Your task to perform on an android device: install app "Paramount+ | Peak Streaming" Image 0: 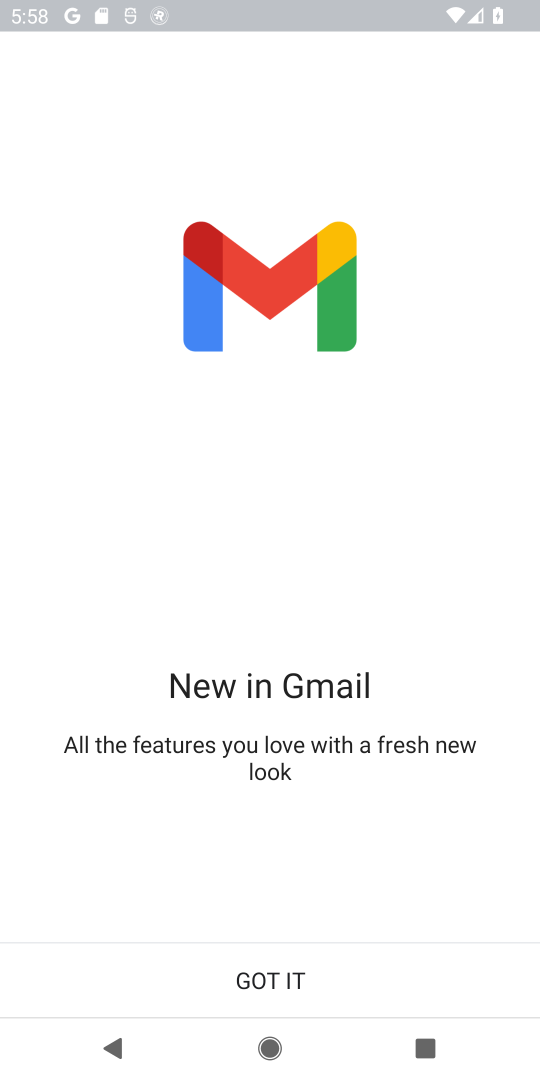
Step 0: press back button
Your task to perform on an android device: install app "Paramount+ | Peak Streaming" Image 1: 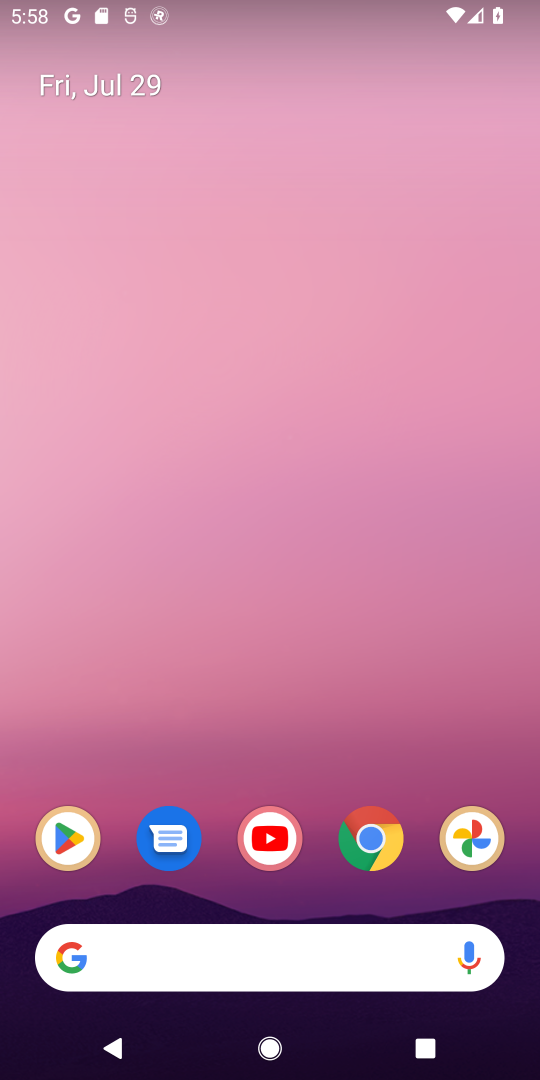
Step 1: click (80, 838)
Your task to perform on an android device: install app "Paramount+ | Peak Streaming" Image 2: 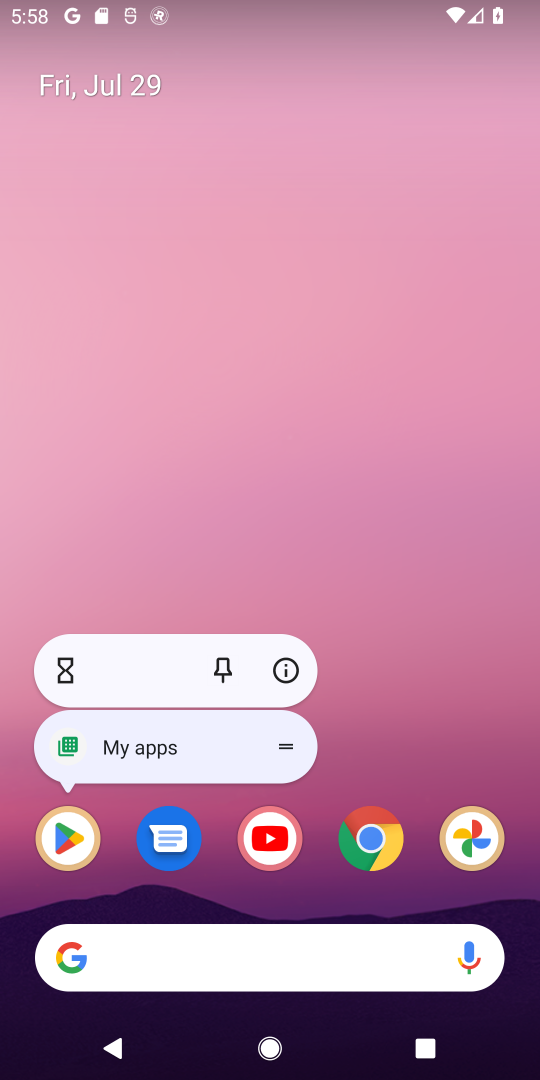
Step 2: click (65, 835)
Your task to perform on an android device: install app "Paramount+ | Peak Streaming" Image 3: 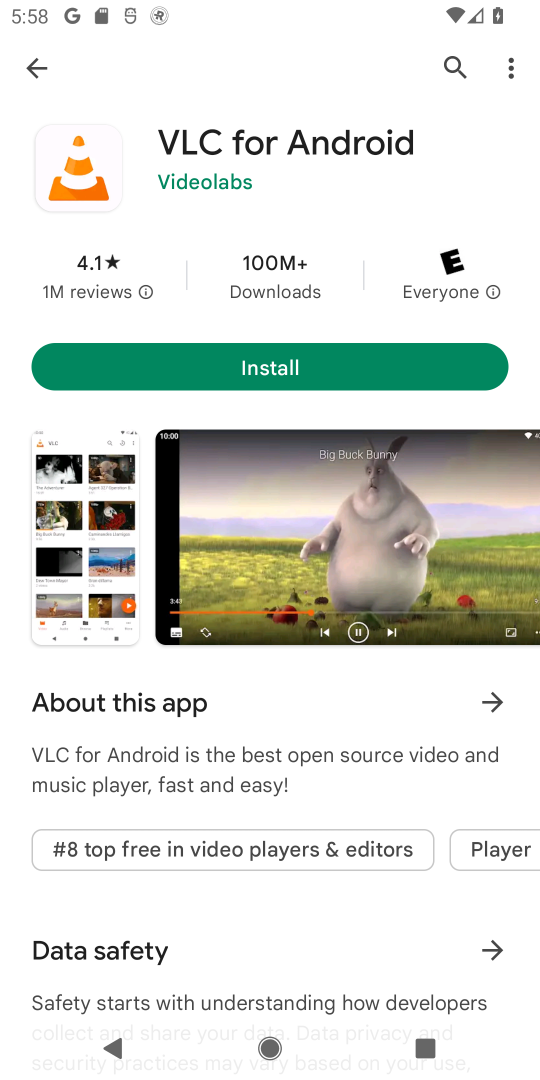
Step 3: click (444, 78)
Your task to perform on an android device: install app "Paramount+ | Peak Streaming" Image 4: 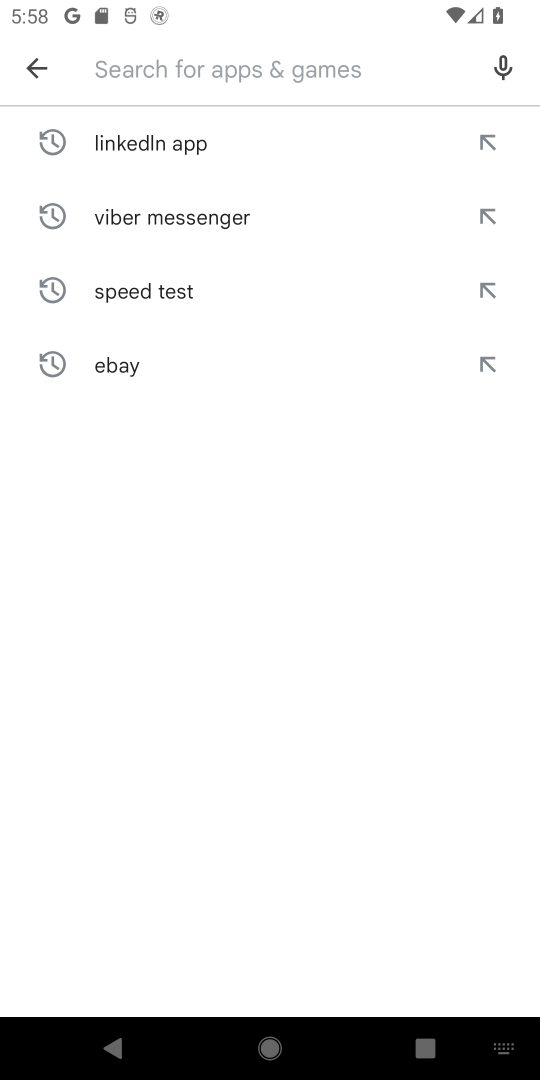
Step 4: click (280, 67)
Your task to perform on an android device: install app "Paramount+ | Peak Streaming" Image 5: 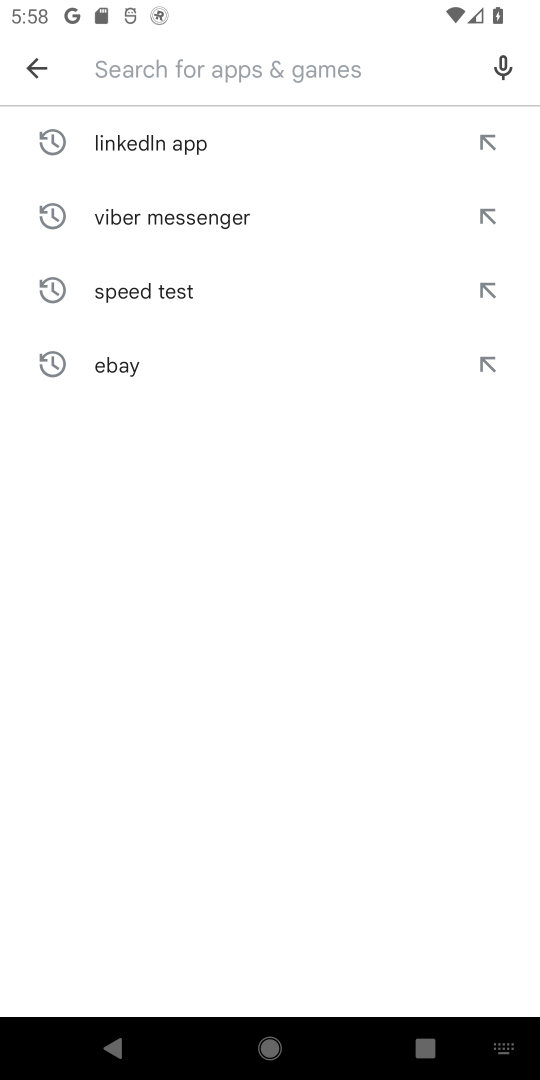
Step 5: type "paramount+"
Your task to perform on an android device: install app "Paramount+ | Peak Streaming" Image 6: 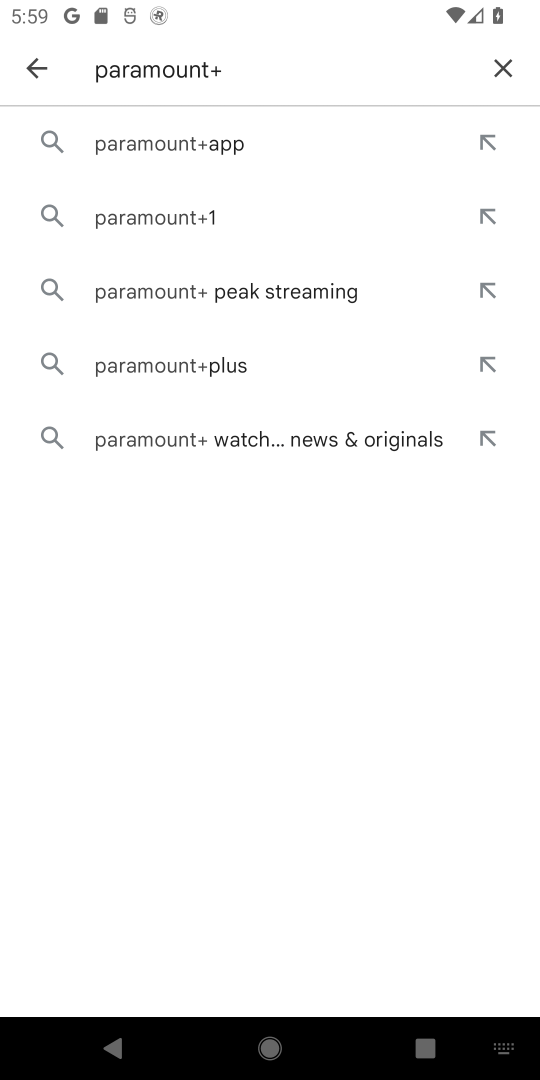
Step 6: click (217, 143)
Your task to perform on an android device: install app "Paramount+ | Peak Streaming" Image 7: 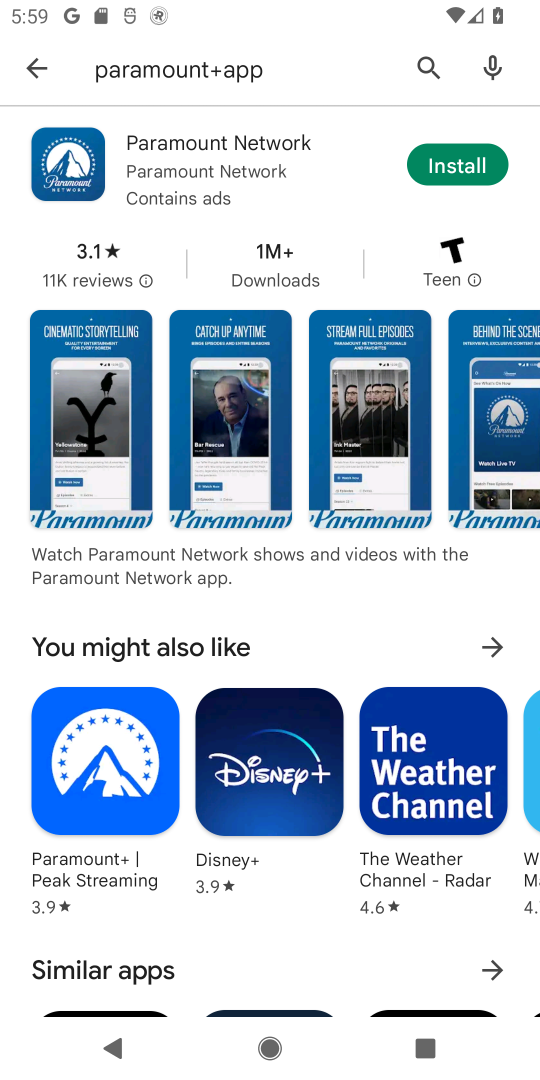
Step 7: click (467, 169)
Your task to perform on an android device: install app "Paramount+ | Peak Streaming" Image 8: 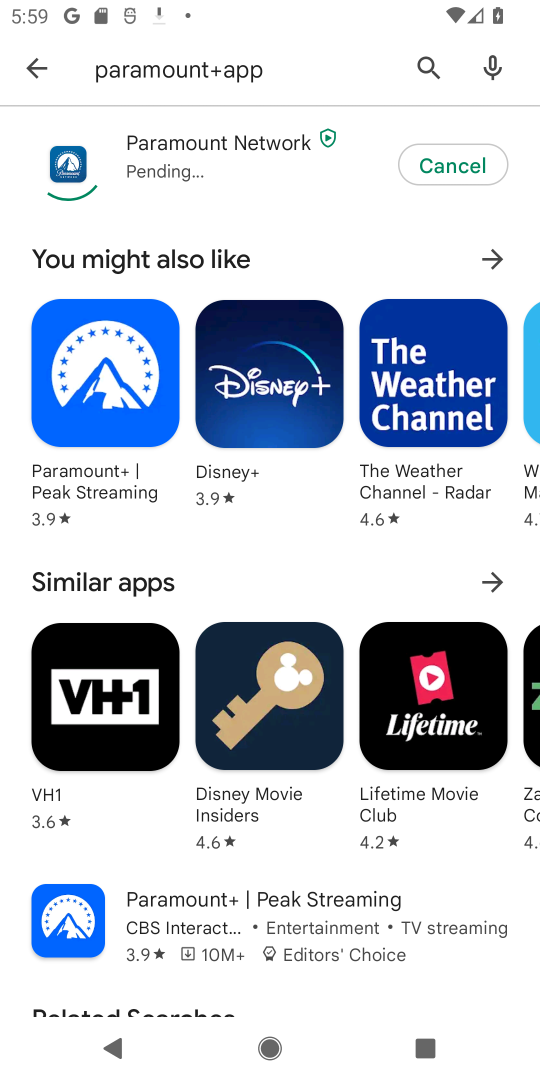
Step 8: click (474, 169)
Your task to perform on an android device: install app "Paramount+ | Peak Streaming" Image 9: 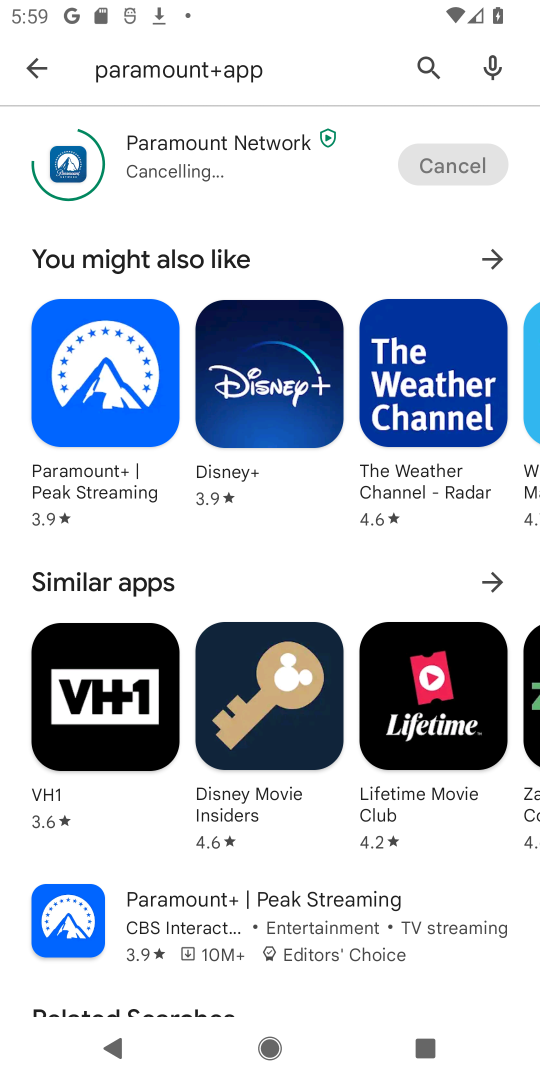
Step 9: click (124, 377)
Your task to perform on an android device: install app "Paramount+ | Peak Streaming" Image 10: 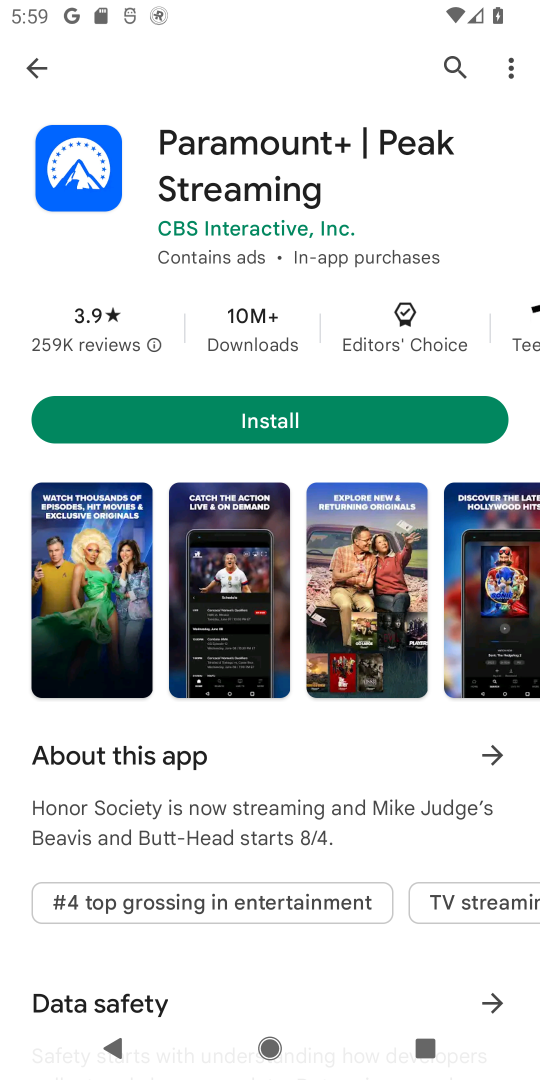
Step 10: click (307, 439)
Your task to perform on an android device: install app "Paramount+ | Peak Streaming" Image 11: 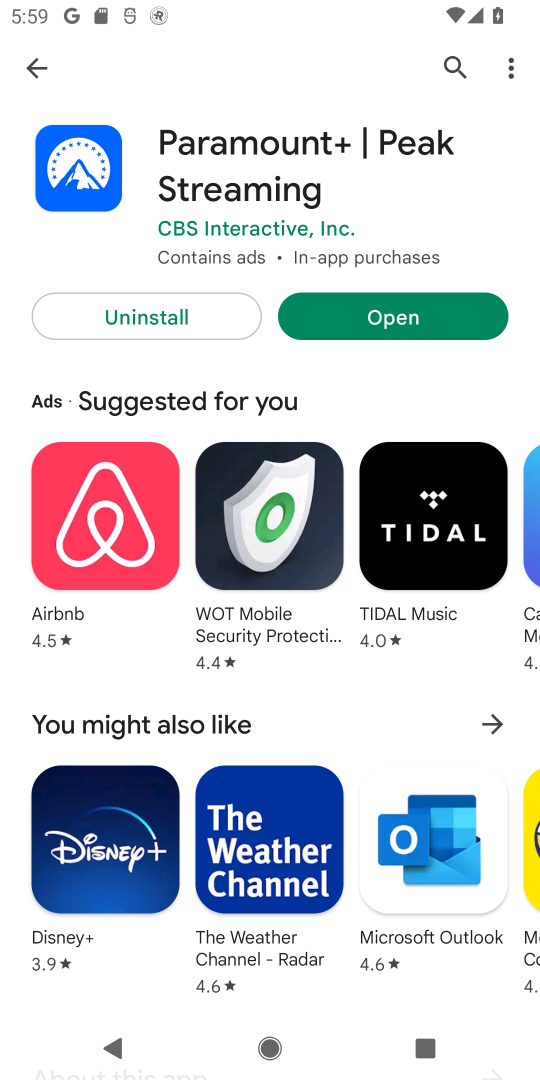
Step 11: click (394, 319)
Your task to perform on an android device: install app "Paramount+ | Peak Streaming" Image 12: 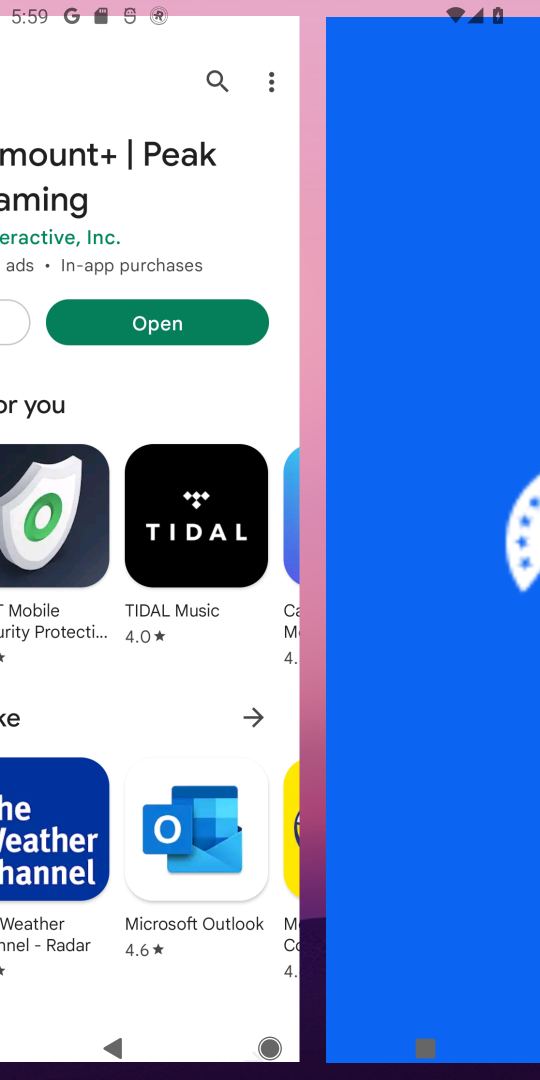
Step 12: task complete